Your task to perform on an android device: add a contact Image 0: 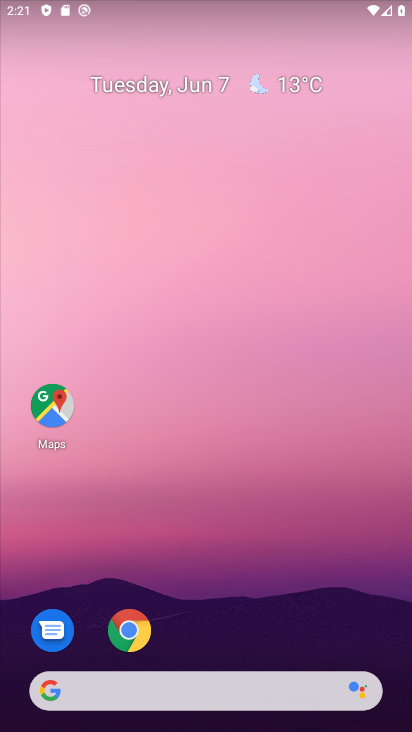
Step 0: drag from (235, 696) to (208, 90)
Your task to perform on an android device: add a contact Image 1: 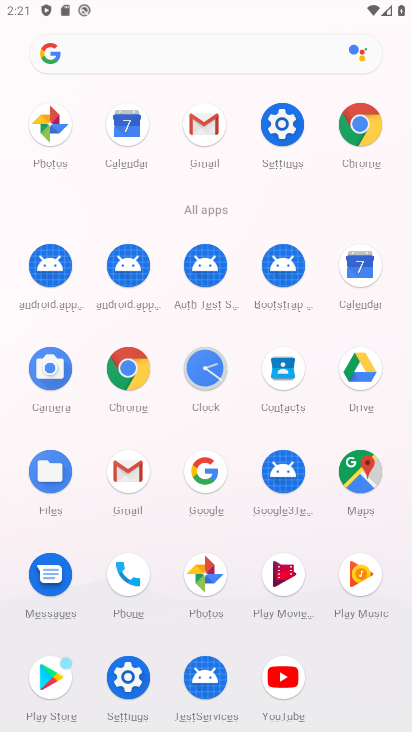
Step 1: click (283, 371)
Your task to perform on an android device: add a contact Image 2: 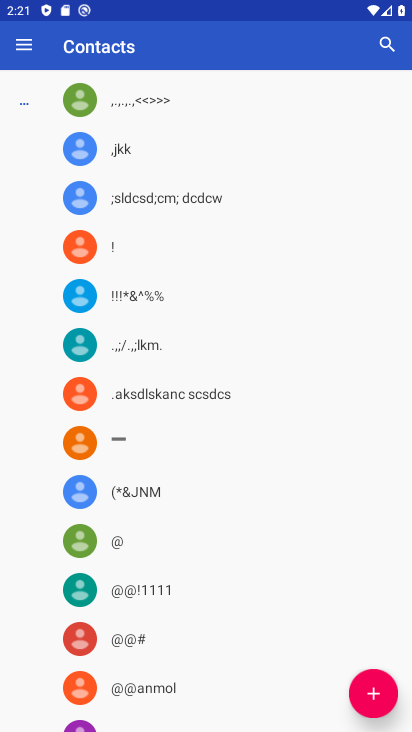
Step 2: click (370, 697)
Your task to perform on an android device: add a contact Image 3: 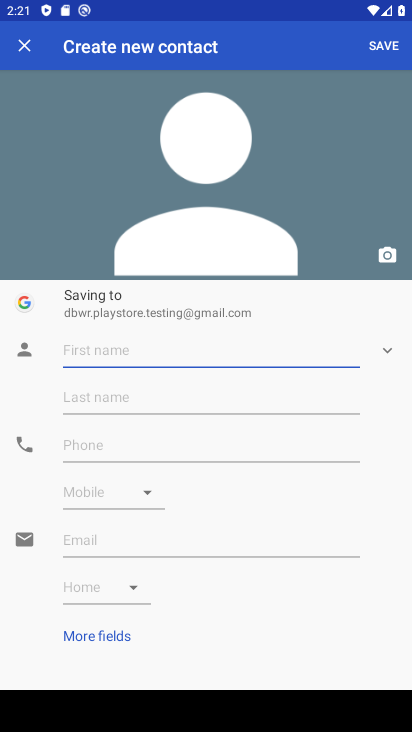
Step 3: type "rufjd"
Your task to perform on an android device: add a contact Image 4: 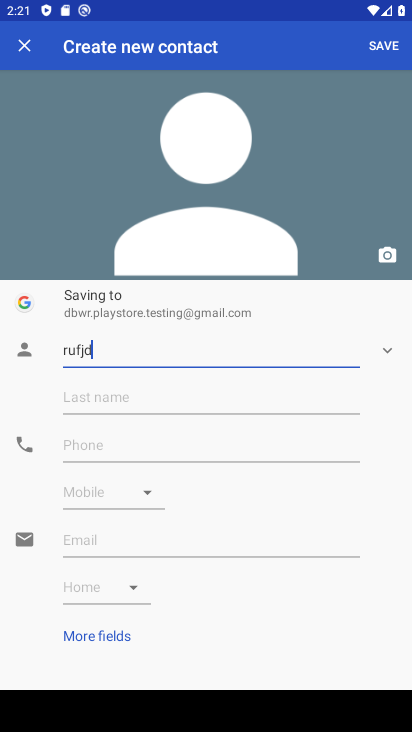
Step 4: click (172, 436)
Your task to perform on an android device: add a contact Image 5: 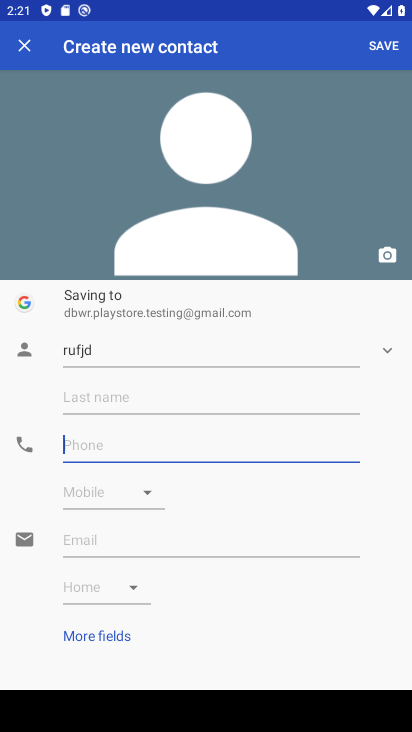
Step 5: click (172, 436)
Your task to perform on an android device: add a contact Image 6: 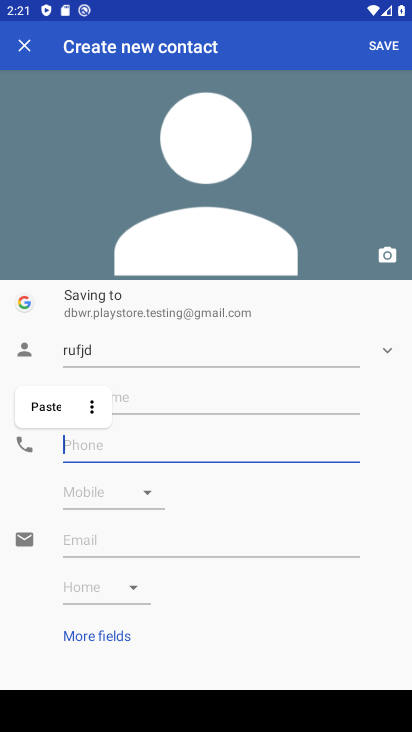
Step 6: type "23892342"
Your task to perform on an android device: add a contact Image 7: 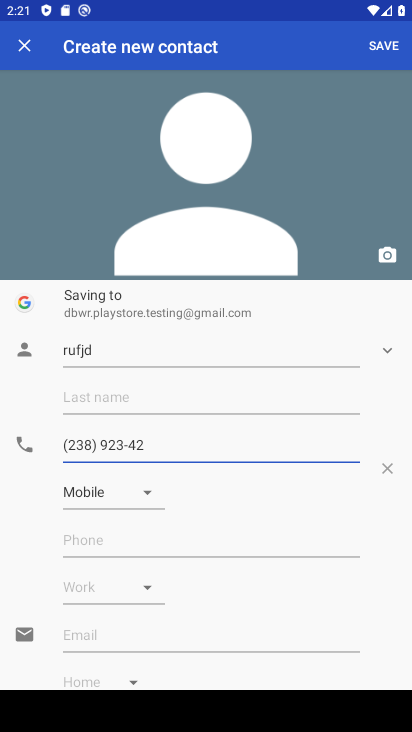
Step 7: click (380, 41)
Your task to perform on an android device: add a contact Image 8: 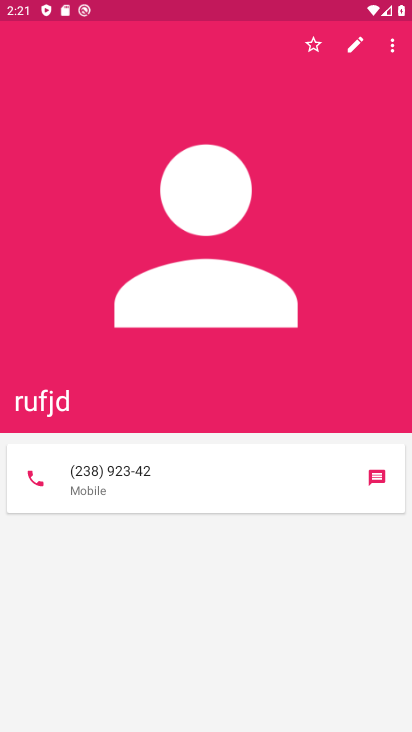
Step 8: task complete